Your task to perform on an android device: change notifications settings Image 0: 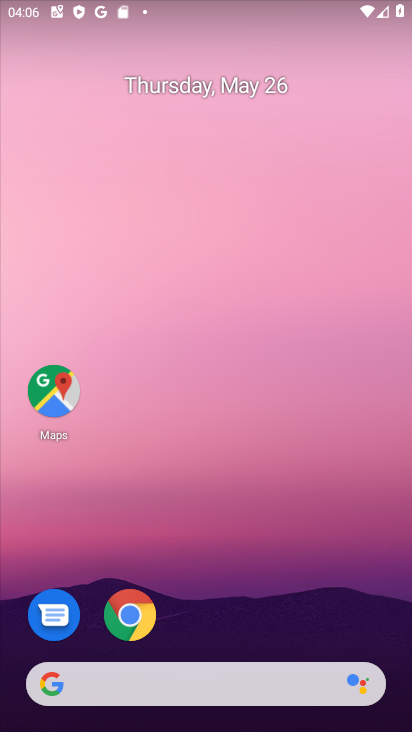
Step 0: drag from (224, 643) to (201, 249)
Your task to perform on an android device: change notifications settings Image 1: 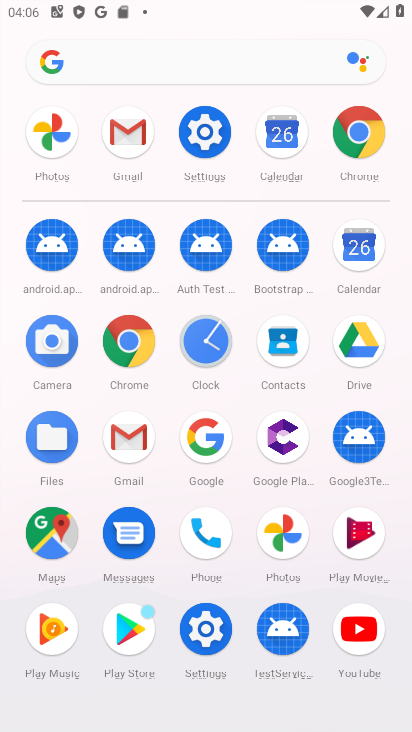
Step 1: click (209, 621)
Your task to perform on an android device: change notifications settings Image 2: 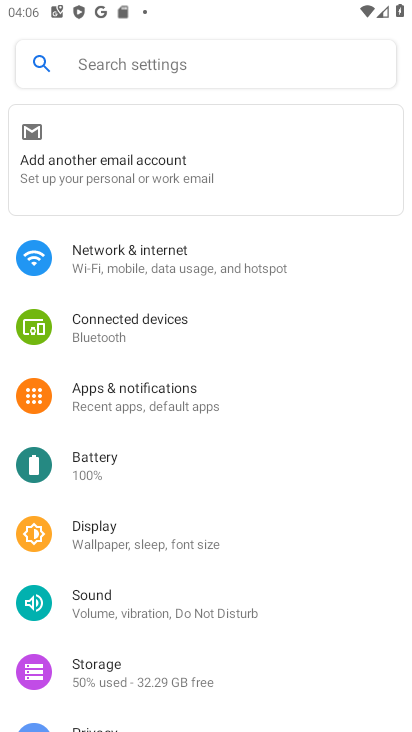
Step 2: click (115, 416)
Your task to perform on an android device: change notifications settings Image 3: 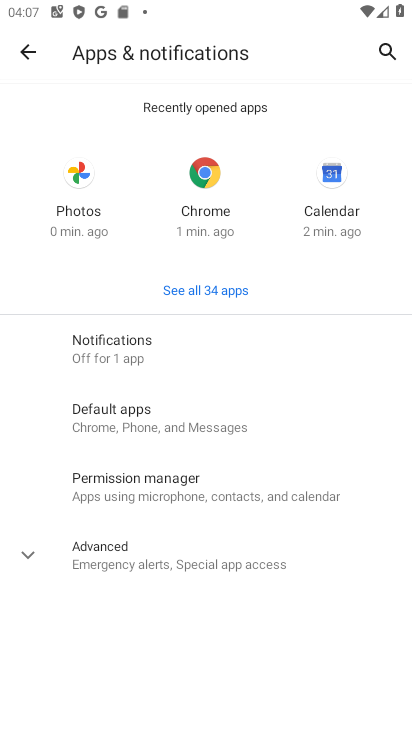
Step 3: click (115, 362)
Your task to perform on an android device: change notifications settings Image 4: 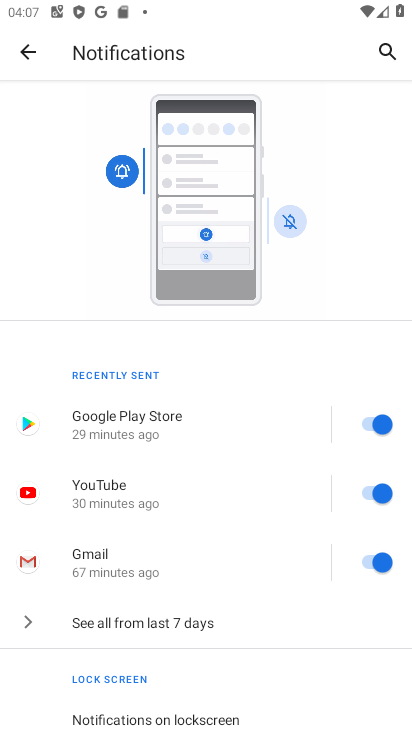
Step 4: drag from (219, 686) to (221, 366)
Your task to perform on an android device: change notifications settings Image 5: 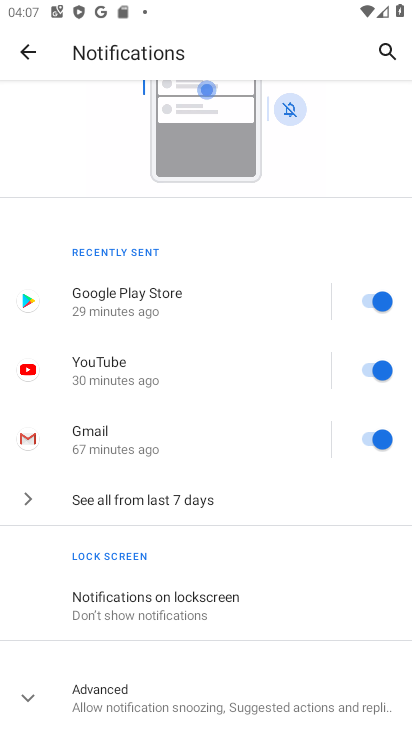
Step 5: click (138, 598)
Your task to perform on an android device: change notifications settings Image 6: 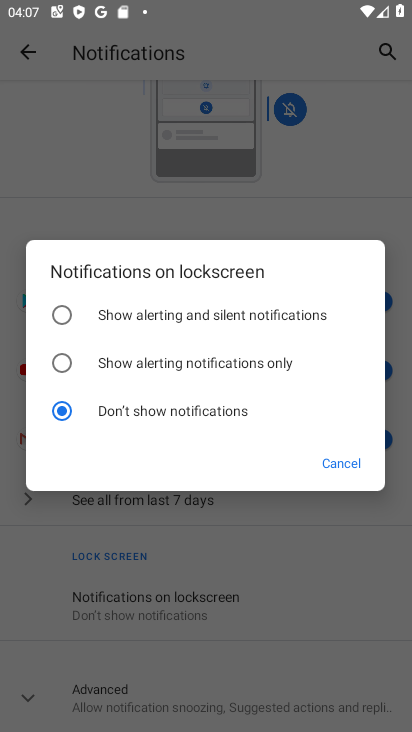
Step 6: click (69, 318)
Your task to perform on an android device: change notifications settings Image 7: 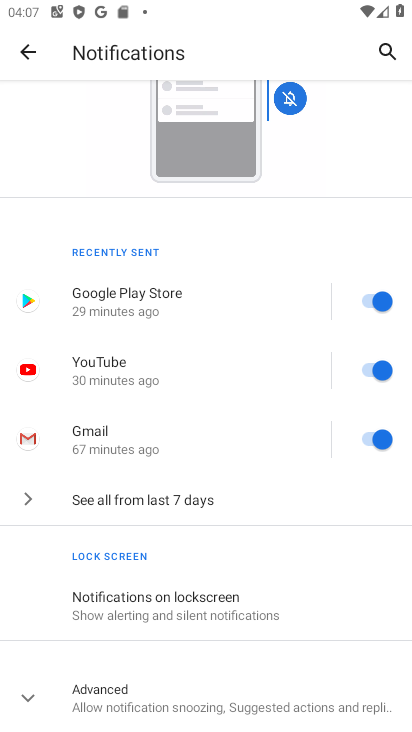
Step 7: task complete